Your task to perform on an android device: open a bookmark in the chrome app Image 0: 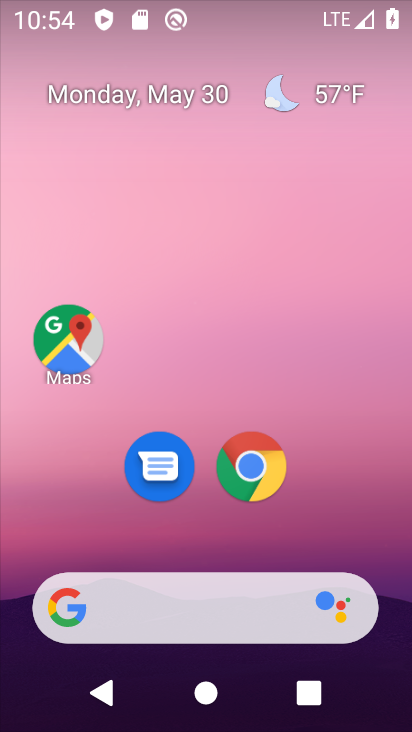
Step 0: click (257, 463)
Your task to perform on an android device: open a bookmark in the chrome app Image 1: 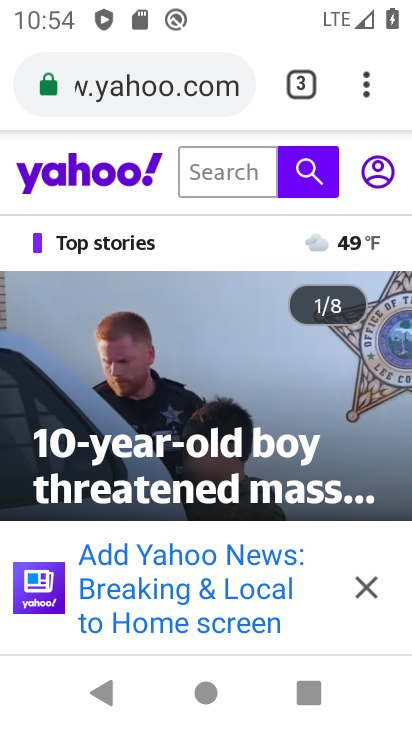
Step 1: task complete